Your task to perform on an android device: Go to Yahoo.com Image 0: 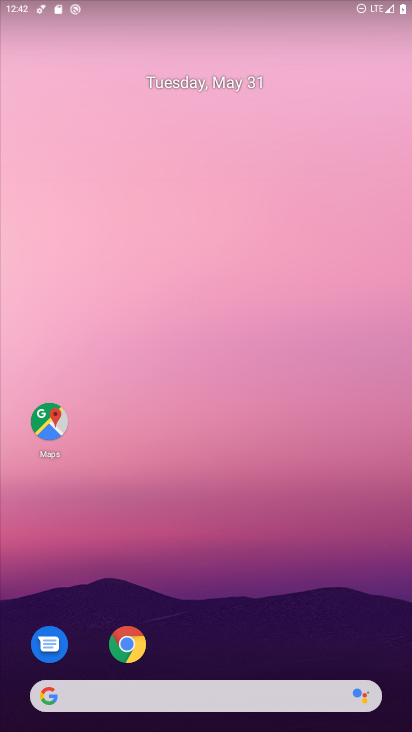
Step 0: drag from (198, 654) to (251, 131)
Your task to perform on an android device: Go to Yahoo.com Image 1: 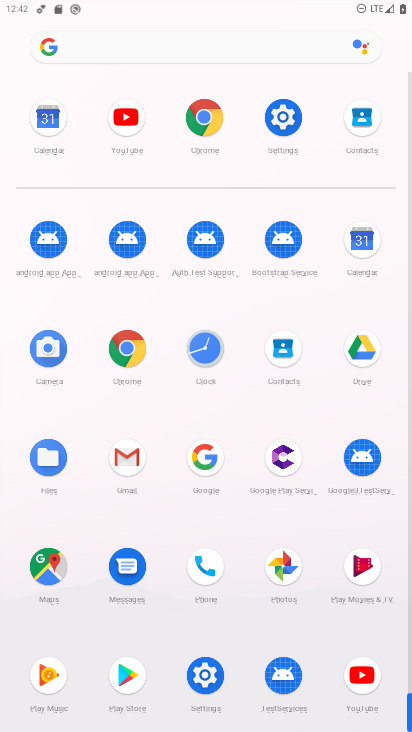
Step 1: click (168, 41)
Your task to perform on an android device: Go to Yahoo.com Image 2: 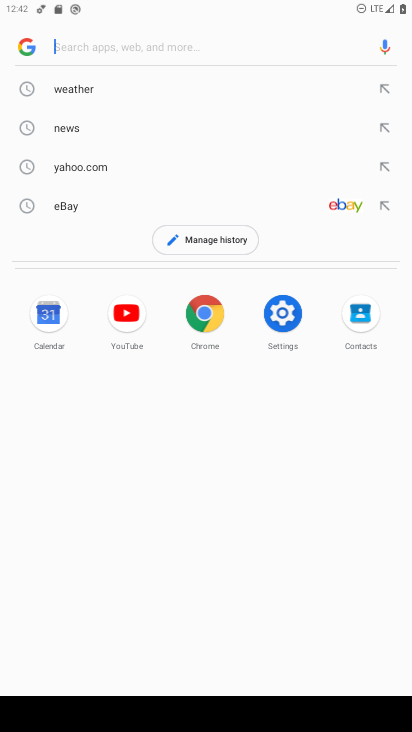
Step 2: click (67, 162)
Your task to perform on an android device: Go to Yahoo.com Image 3: 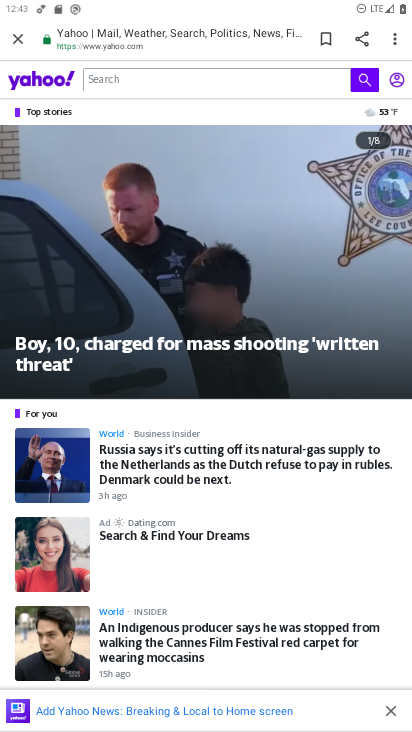
Step 3: task complete